Your task to perform on an android device: Open calendar and show me the fourth week of next month Image 0: 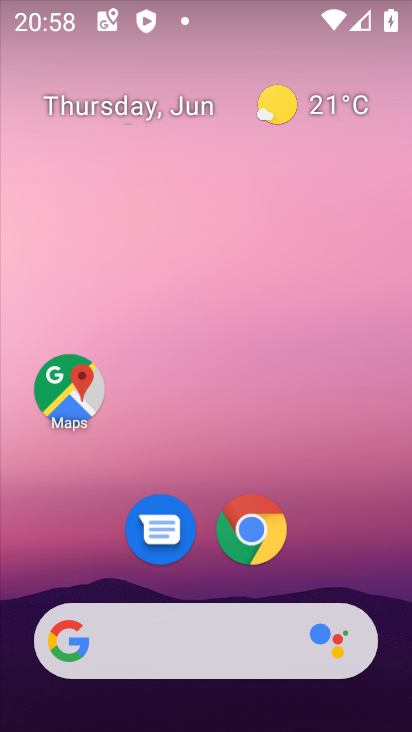
Step 0: drag from (335, 485) to (200, 83)
Your task to perform on an android device: Open calendar and show me the fourth week of next month Image 1: 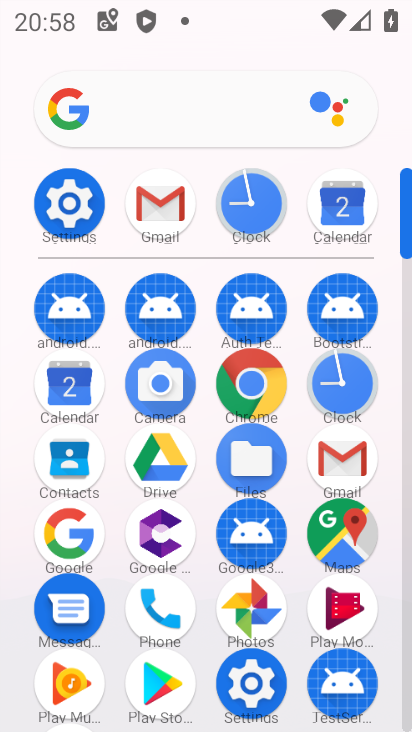
Step 1: click (61, 395)
Your task to perform on an android device: Open calendar and show me the fourth week of next month Image 2: 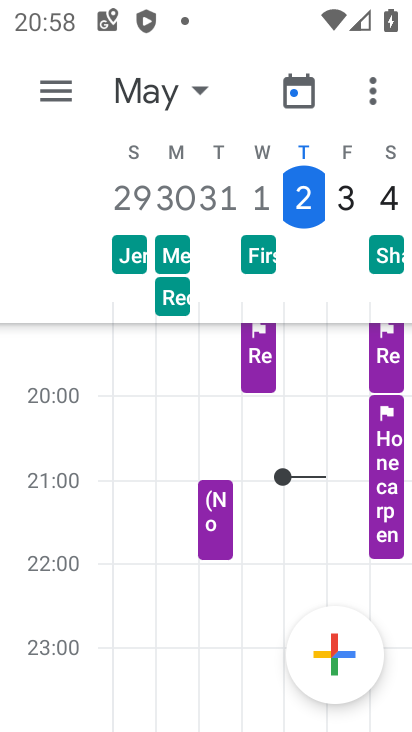
Step 2: click (202, 88)
Your task to perform on an android device: Open calendar and show me the fourth week of next month Image 3: 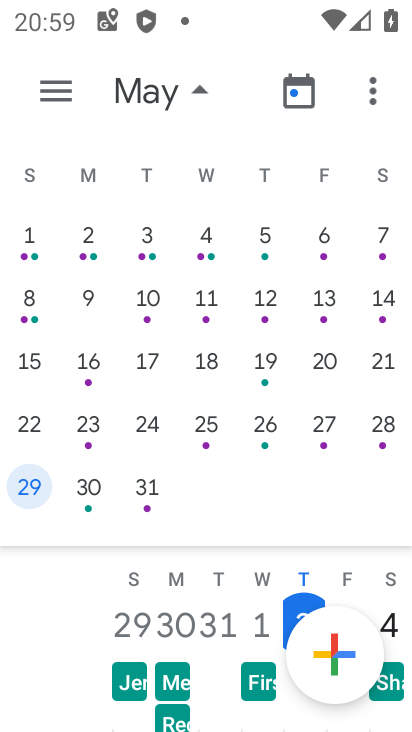
Step 3: drag from (334, 368) to (67, 285)
Your task to perform on an android device: Open calendar and show me the fourth week of next month Image 4: 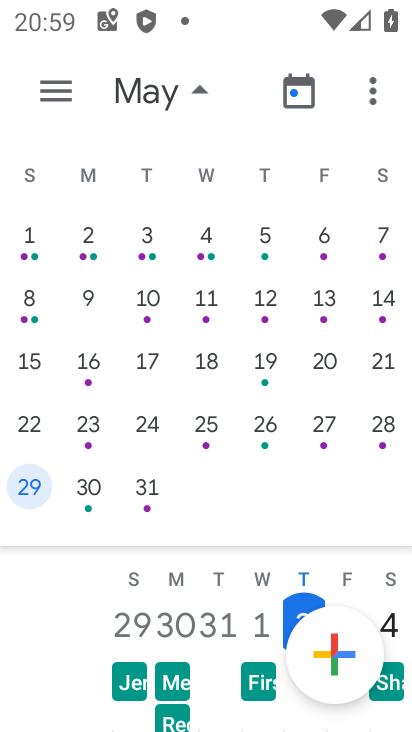
Step 4: drag from (340, 322) to (51, 277)
Your task to perform on an android device: Open calendar and show me the fourth week of next month Image 5: 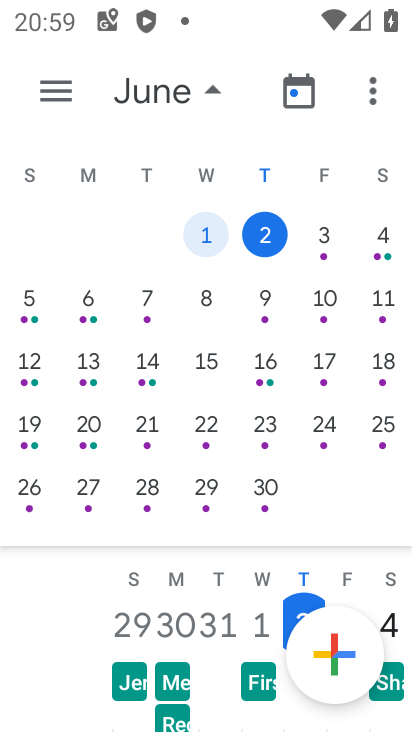
Step 5: drag from (345, 388) to (62, 347)
Your task to perform on an android device: Open calendar and show me the fourth week of next month Image 6: 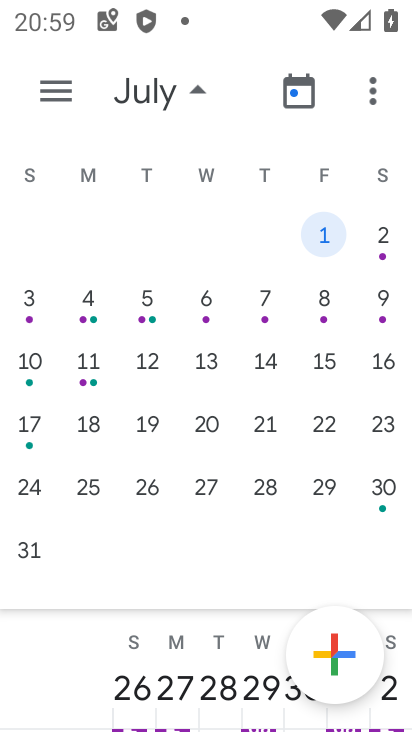
Step 6: click (204, 419)
Your task to perform on an android device: Open calendar and show me the fourth week of next month Image 7: 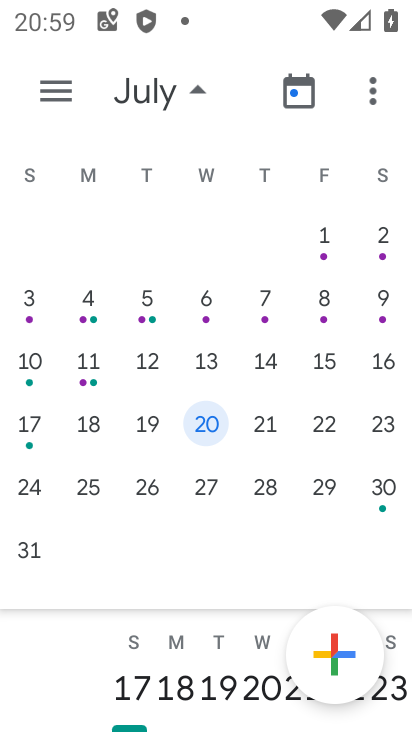
Step 7: task complete